Your task to perform on an android device: turn on location history Image 0: 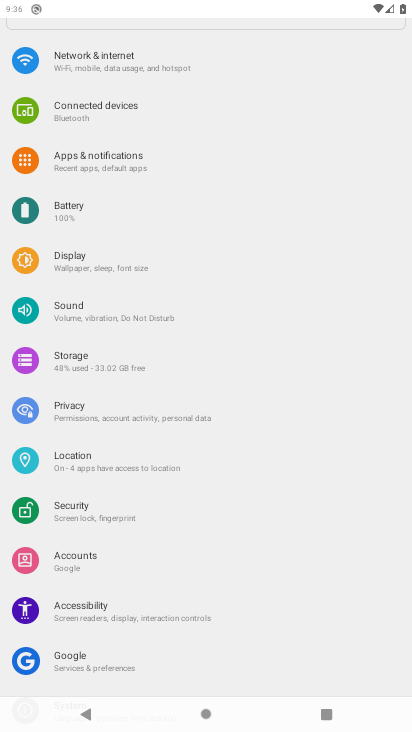
Step 0: click (93, 461)
Your task to perform on an android device: turn on location history Image 1: 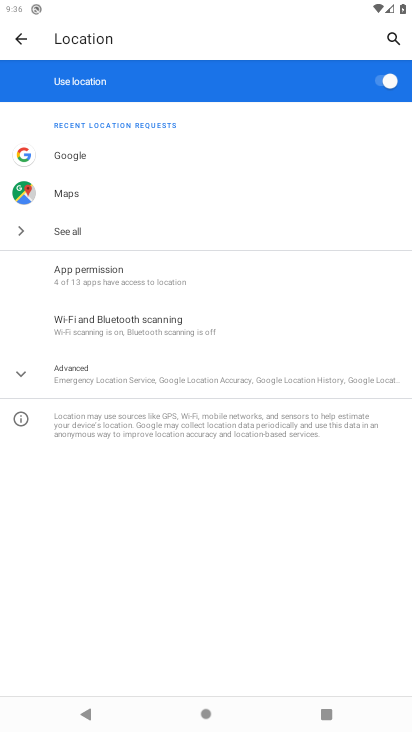
Step 1: click (107, 361)
Your task to perform on an android device: turn on location history Image 2: 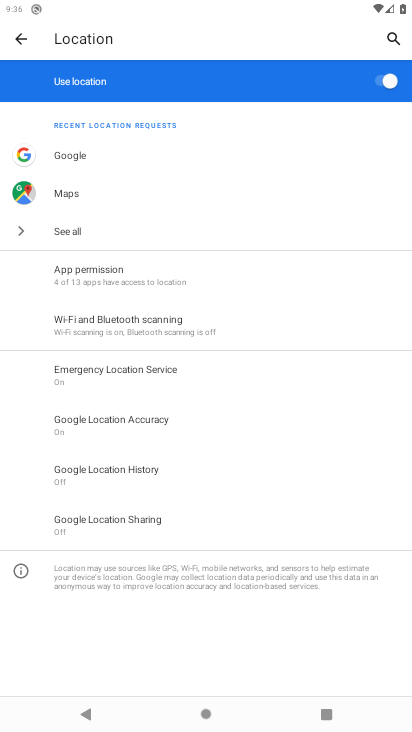
Step 2: click (104, 472)
Your task to perform on an android device: turn on location history Image 3: 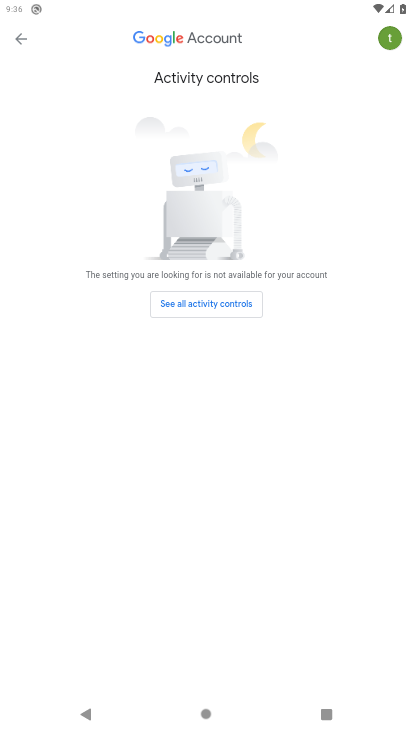
Step 3: click (210, 307)
Your task to perform on an android device: turn on location history Image 4: 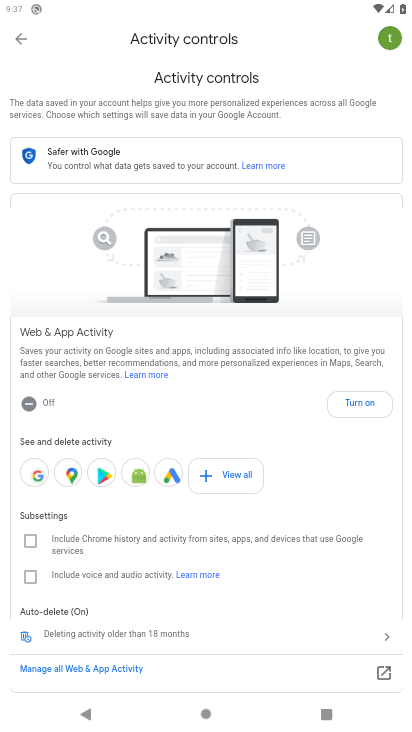
Step 4: click (358, 401)
Your task to perform on an android device: turn on location history Image 5: 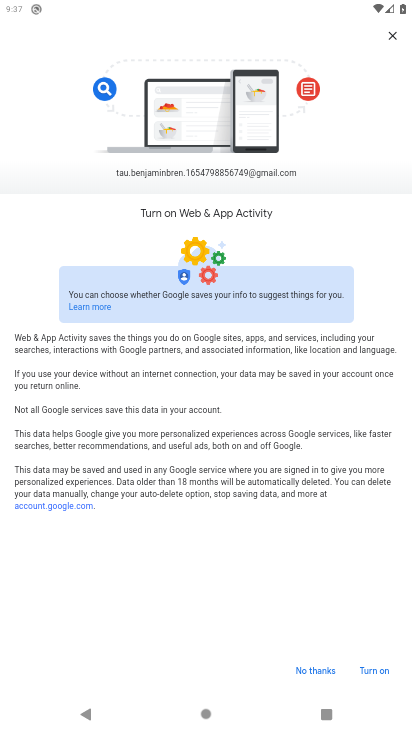
Step 5: click (378, 667)
Your task to perform on an android device: turn on location history Image 6: 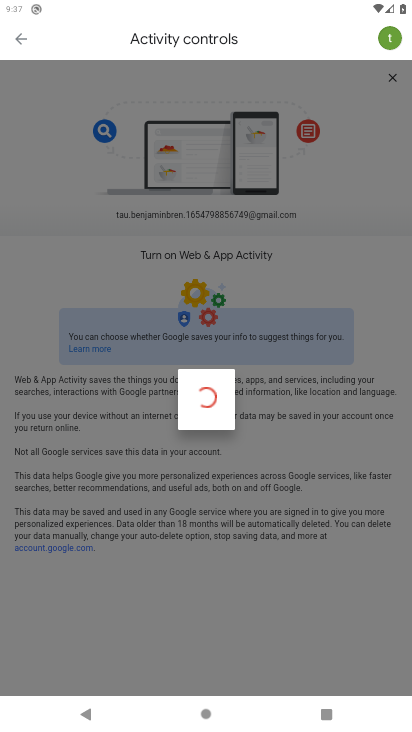
Step 6: click (379, 668)
Your task to perform on an android device: turn on location history Image 7: 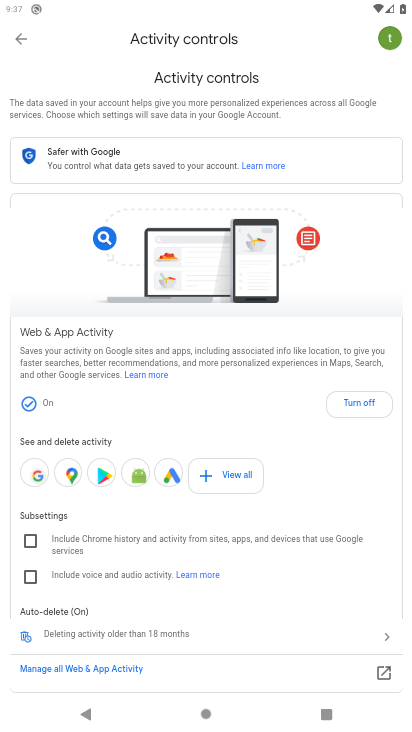
Step 7: task complete